Your task to perform on an android device: open device folders in google photos Image 0: 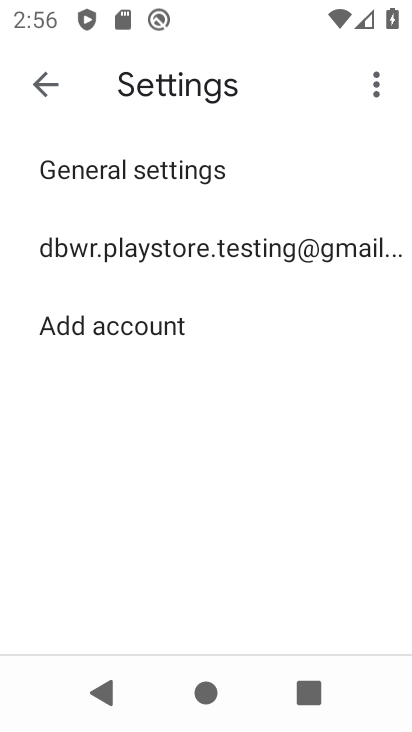
Step 0: press home button
Your task to perform on an android device: open device folders in google photos Image 1: 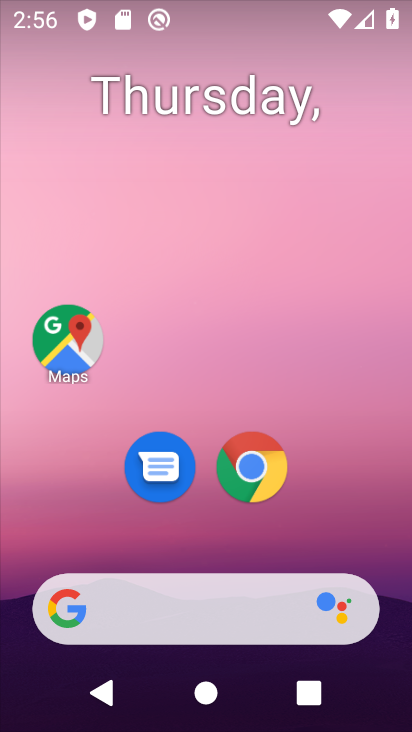
Step 1: drag from (138, 612) to (199, 253)
Your task to perform on an android device: open device folders in google photos Image 2: 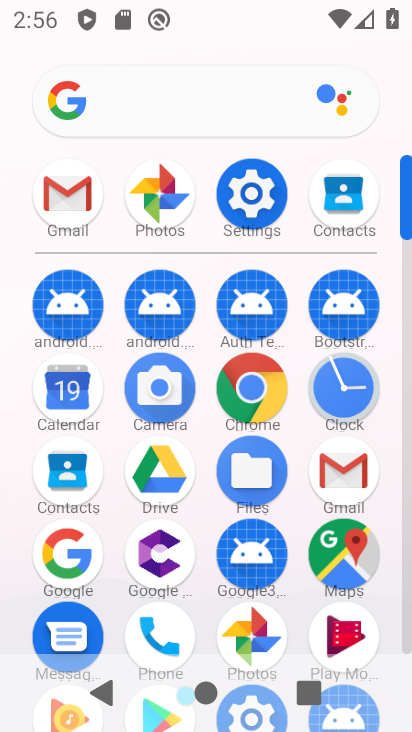
Step 2: click (157, 207)
Your task to perform on an android device: open device folders in google photos Image 3: 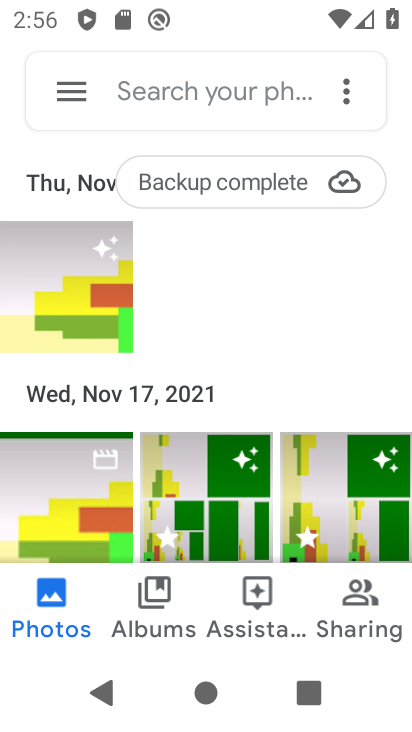
Step 3: click (143, 610)
Your task to perform on an android device: open device folders in google photos Image 4: 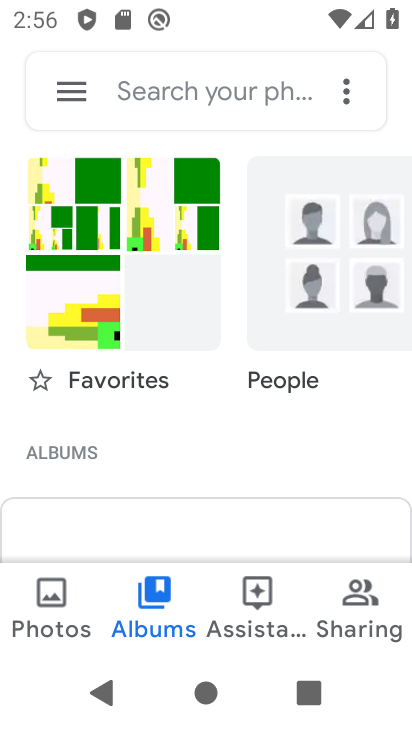
Step 4: task complete